Your task to perform on an android device: check the backup settings in the google photos Image 0: 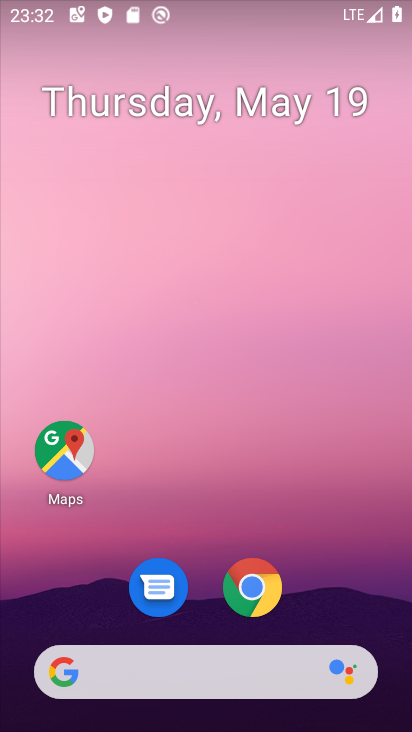
Step 0: drag from (284, 716) to (161, 169)
Your task to perform on an android device: check the backup settings in the google photos Image 1: 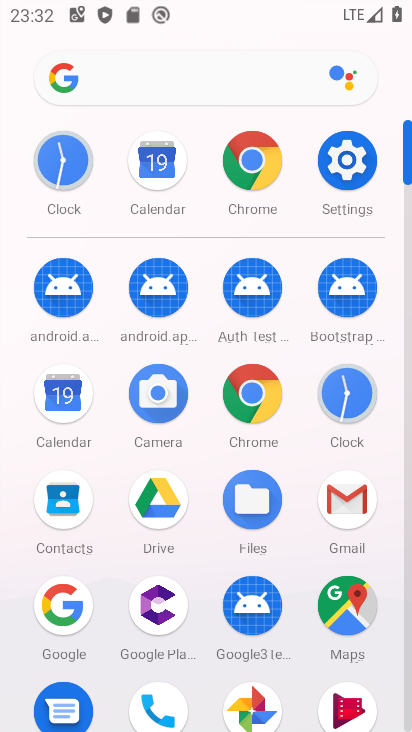
Step 1: click (254, 699)
Your task to perform on an android device: check the backup settings in the google photos Image 2: 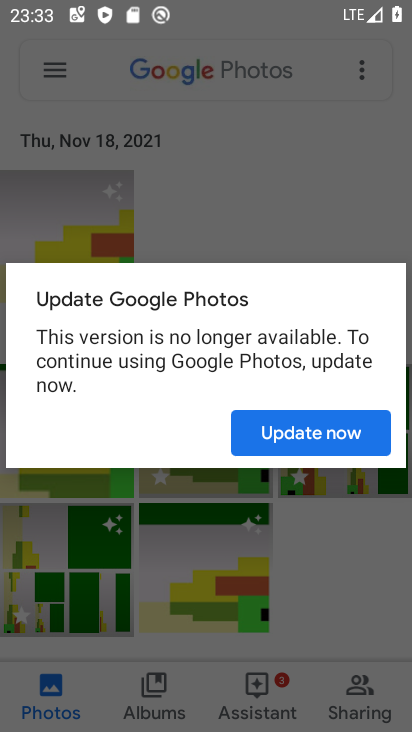
Step 2: click (354, 434)
Your task to perform on an android device: check the backup settings in the google photos Image 3: 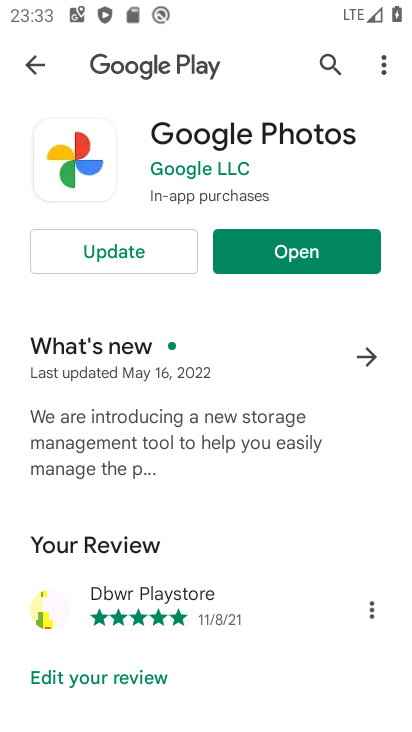
Step 3: click (300, 254)
Your task to perform on an android device: check the backup settings in the google photos Image 4: 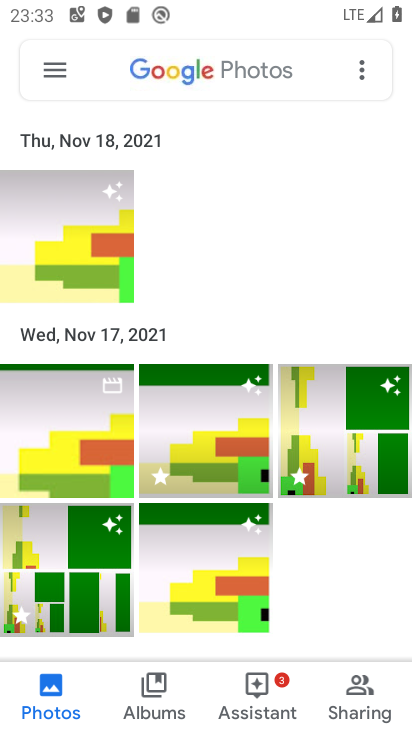
Step 4: click (48, 74)
Your task to perform on an android device: check the backup settings in the google photos Image 5: 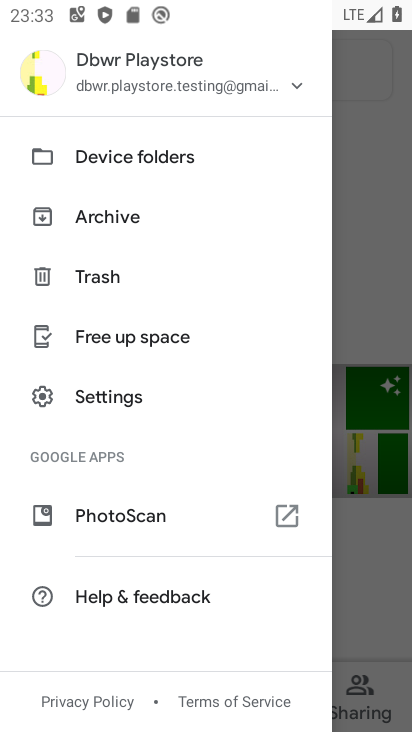
Step 5: click (102, 393)
Your task to perform on an android device: check the backup settings in the google photos Image 6: 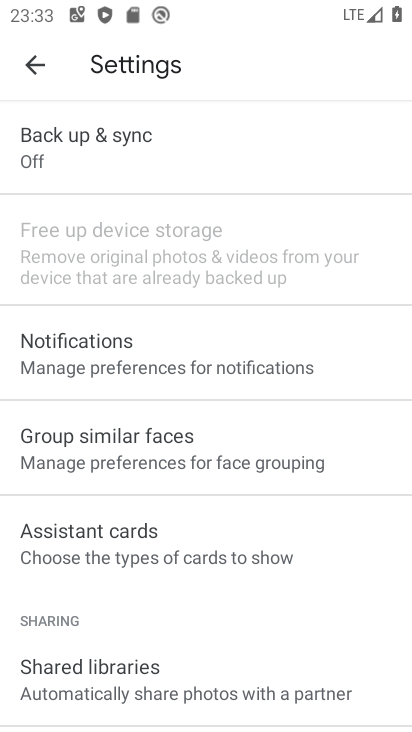
Step 6: click (84, 133)
Your task to perform on an android device: check the backup settings in the google photos Image 7: 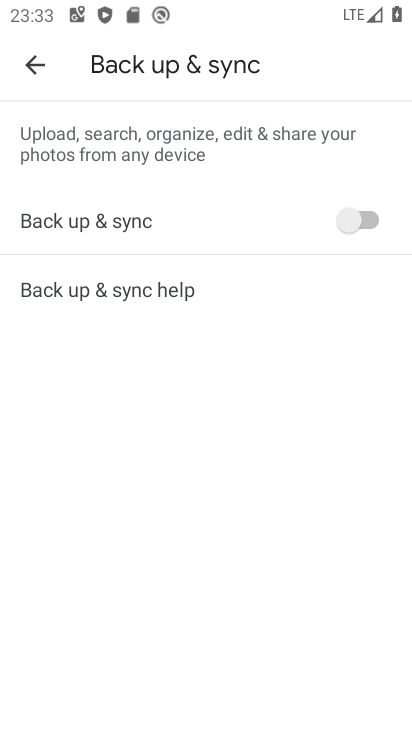
Step 7: task complete